Your task to perform on an android device: Go to display settings Image 0: 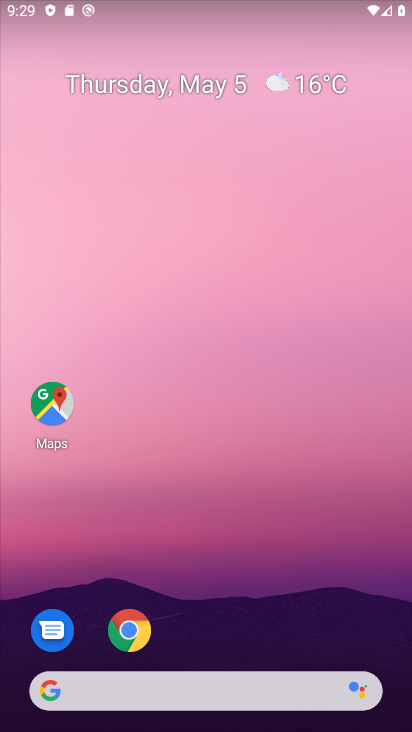
Step 0: drag from (199, 621) to (199, 168)
Your task to perform on an android device: Go to display settings Image 1: 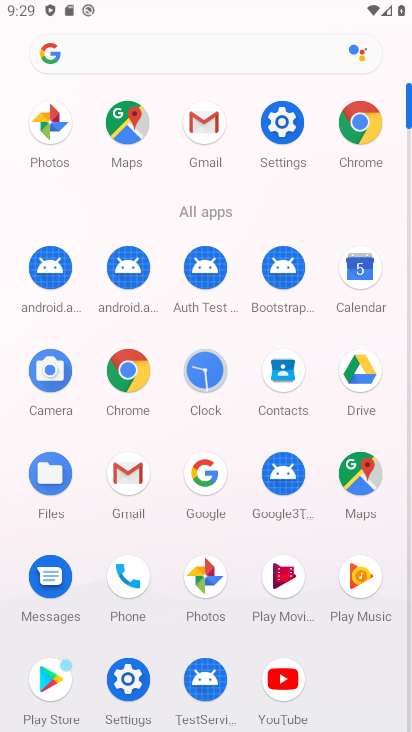
Step 1: click (286, 137)
Your task to perform on an android device: Go to display settings Image 2: 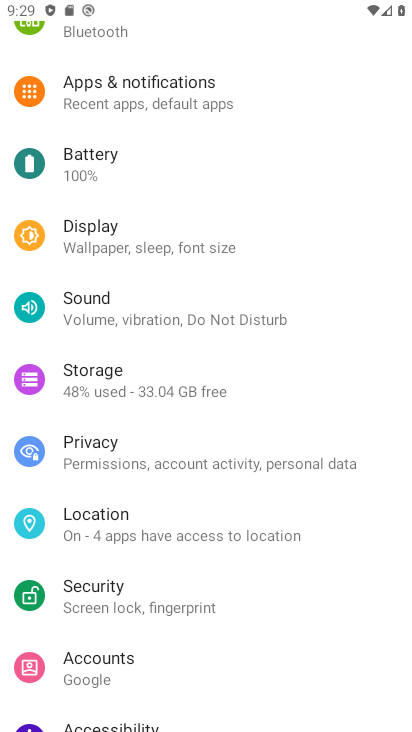
Step 2: click (173, 245)
Your task to perform on an android device: Go to display settings Image 3: 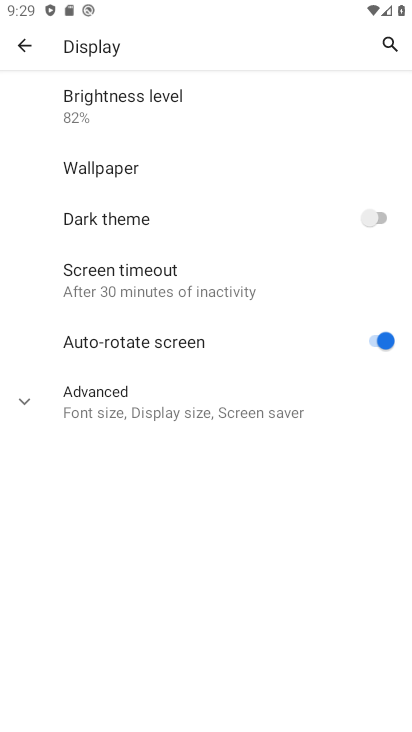
Step 3: task complete